Your task to perform on an android device: What's the weather going to be tomorrow? Image 0: 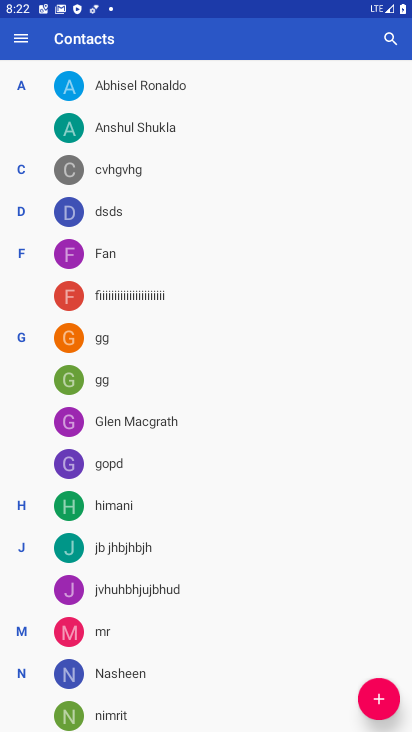
Step 0: press home button
Your task to perform on an android device: What's the weather going to be tomorrow? Image 1: 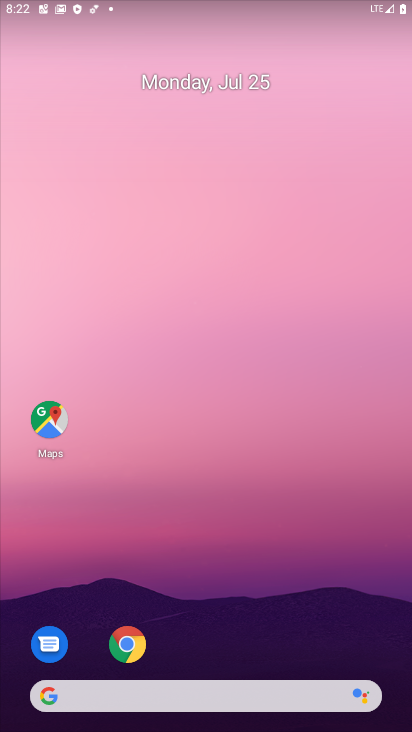
Step 1: drag from (213, 577) to (250, 1)
Your task to perform on an android device: What's the weather going to be tomorrow? Image 2: 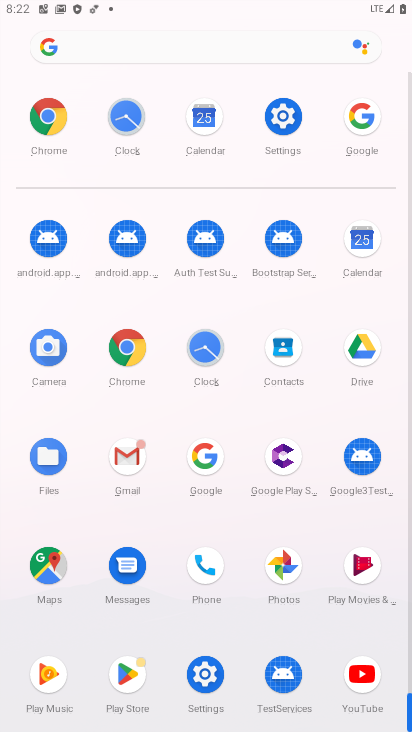
Step 2: click (149, 356)
Your task to perform on an android device: What's the weather going to be tomorrow? Image 3: 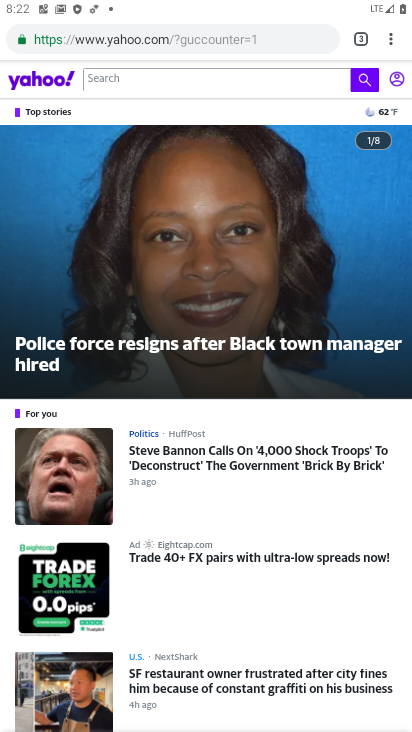
Step 3: click (359, 38)
Your task to perform on an android device: What's the weather going to be tomorrow? Image 4: 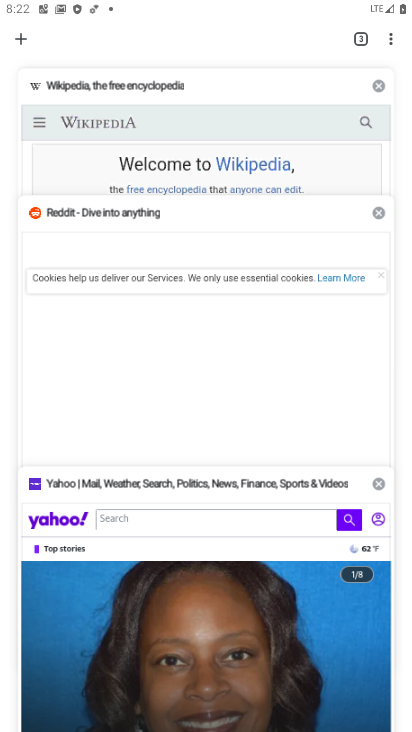
Step 4: click (22, 47)
Your task to perform on an android device: What's the weather going to be tomorrow? Image 5: 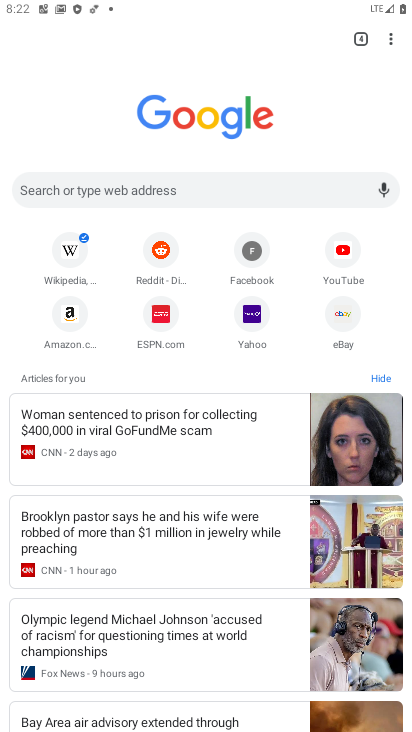
Step 5: click (148, 193)
Your task to perform on an android device: What's the weather going to be tomorrow? Image 6: 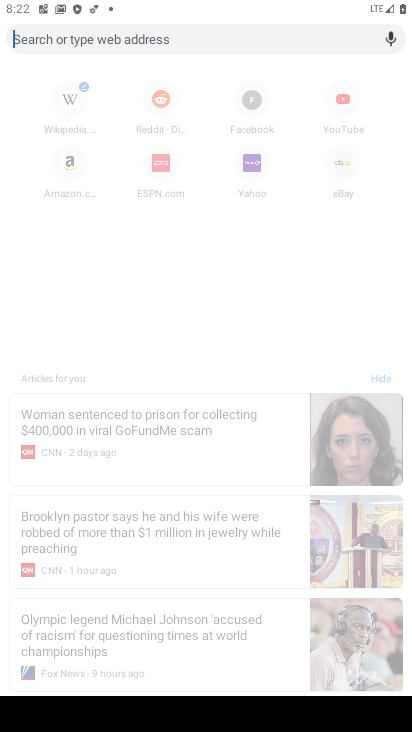
Step 6: type "weather"
Your task to perform on an android device: What's the weather going to be tomorrow? Image 7: 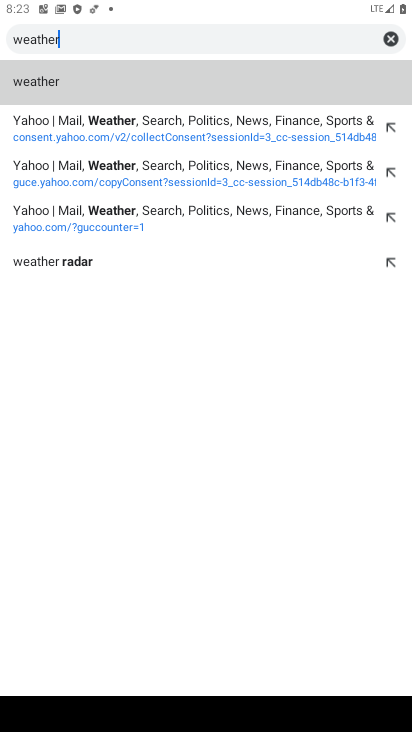
Step 7: type ""
Your task to perform on an android device: What's the weather going to be tomorrow? Image 8: 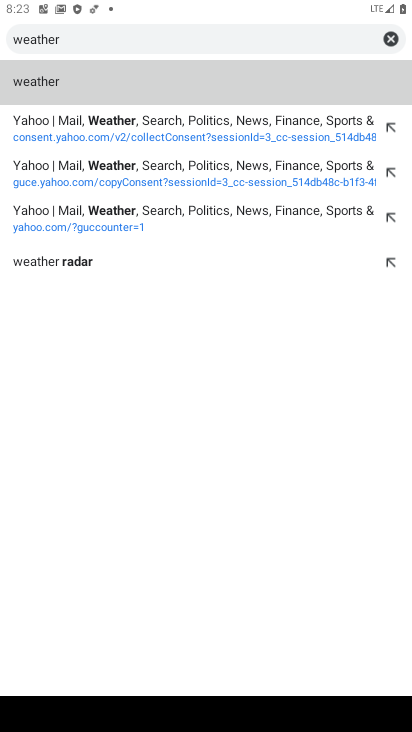
Step 8: click (140, 85)
Your task to perform on an android device: What's the weather going to be tomorrow? Image 9: 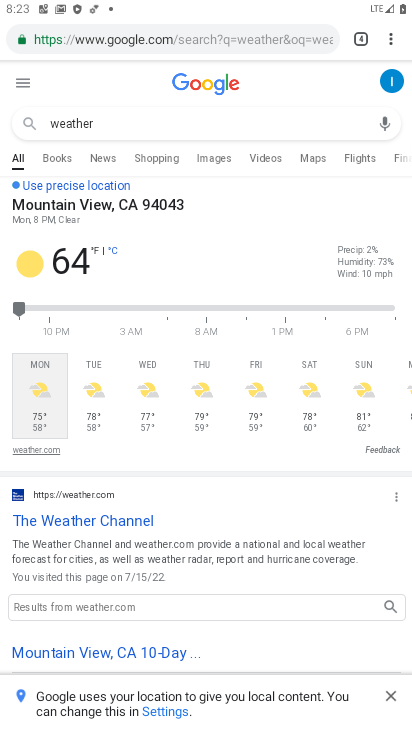
Step 9: task complete